Your task to perform on an android device: see tabs open on other devices in the chrome app Image 0: 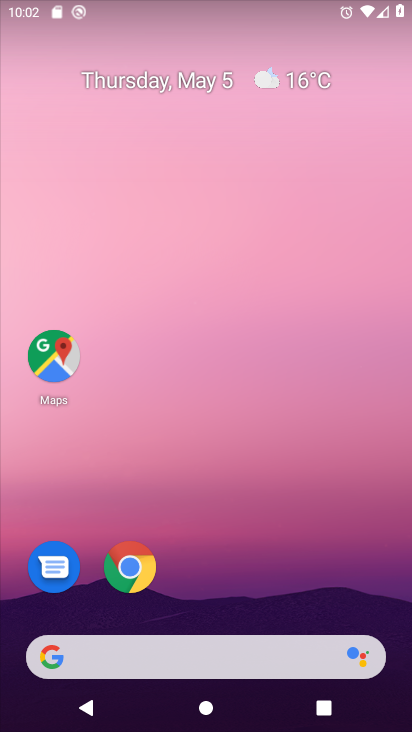
Step 0: drag from (220, 544) to (270, 0)
Your task to perform on an android device: see tabs open on other devices in the chrome app Image 1: 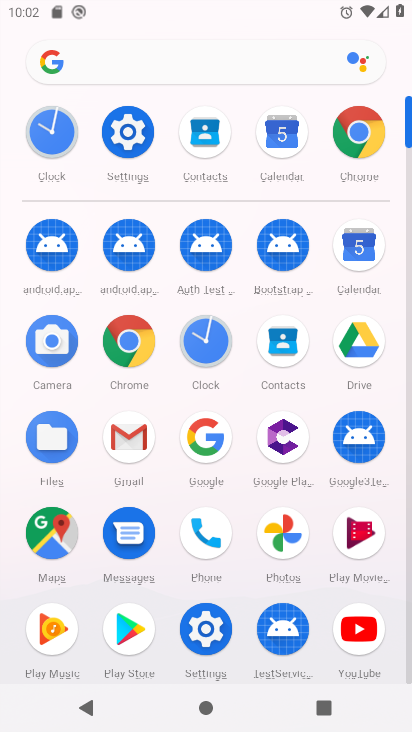
Step 1: click (360, 140)
Your task to perform on an android device: see tabs open on other devices in the chrome app Image 2: 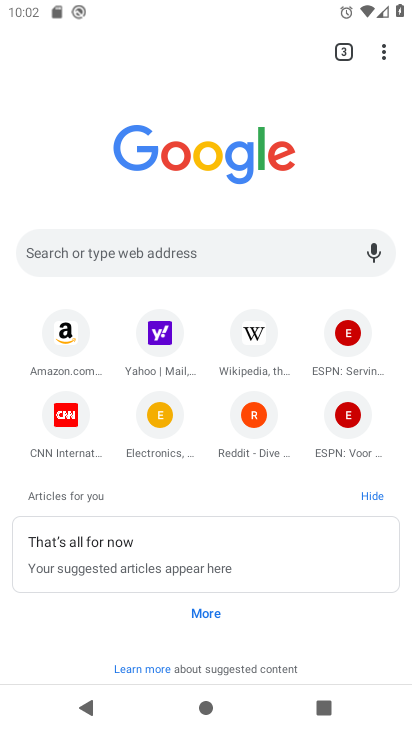
Step 2: task complete